Your task to perform on an android device: Open privacy settings Image 0: 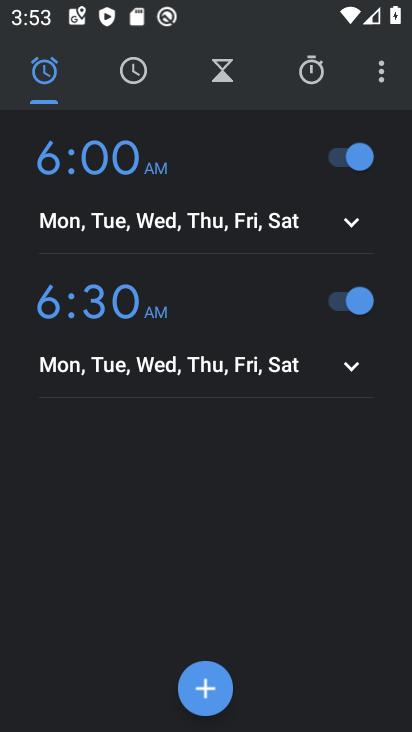
Step 0: press home button
Your task to perform on an android device: Open privacy settings Image 1: 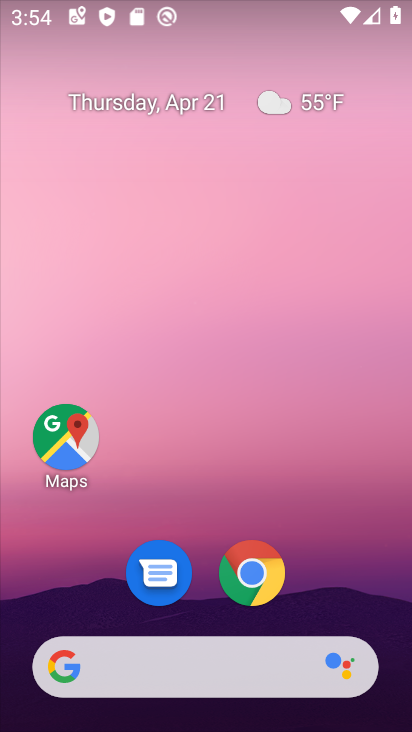
Step 1: drag from (346, 602) to (284, 129)
Your task to perform on an android device: Open privacy settings Image 2: 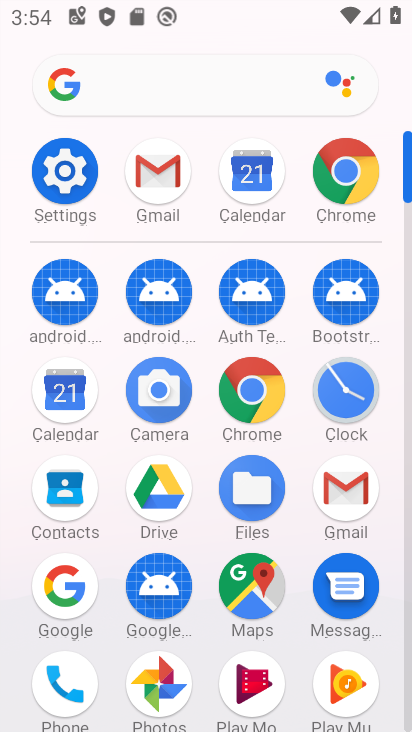
Step 2: click (409, 695)
Your task to perform on an android device: Open privacy settings Image 3: 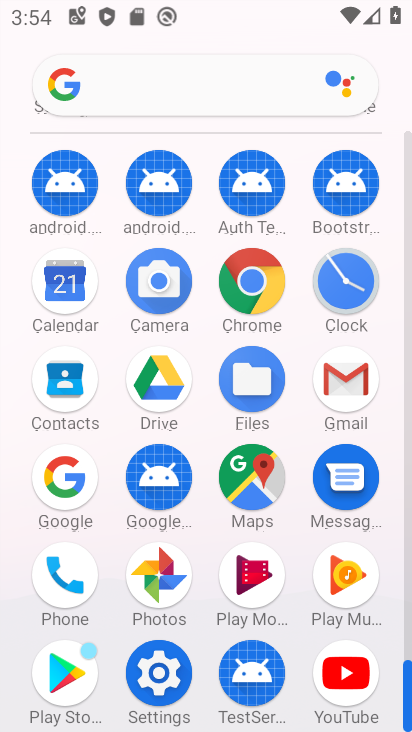
Step 3: click (158, 676)
Your task to perform on an android device: Open privacy settings Image 4: 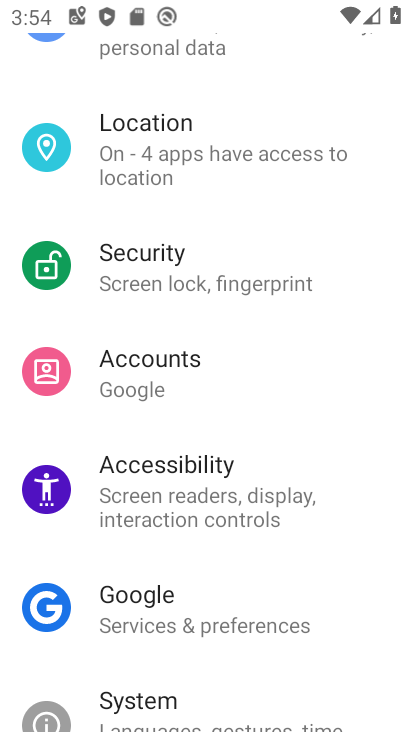
Step 4: drag from (360, 310) to (345, 501)
Your task to perform on an android device: Open privacy settings Image 5: 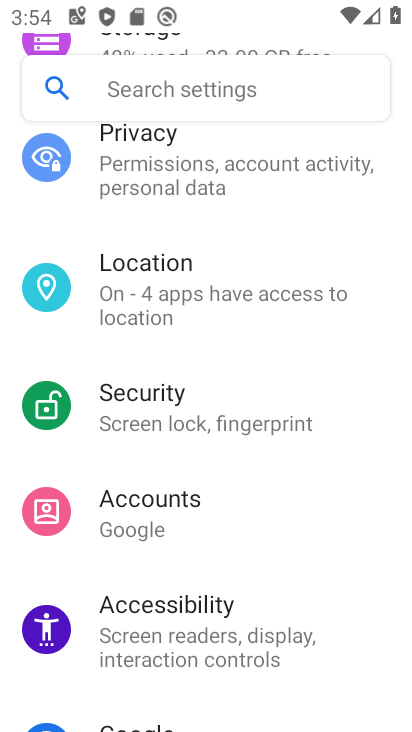
Step 5: drag from (358, 224) to (338, 457)
Your task to perform on an android device: Open privacy settings Image 6: 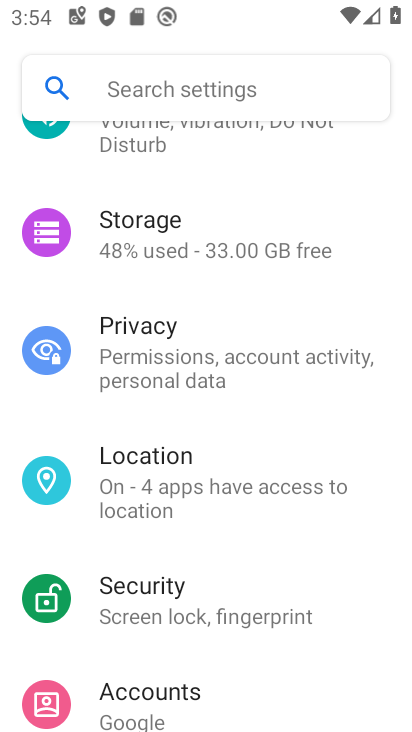
Step 6: click (129, 344)
Your task to perform on an android device: Open privacy settings Image 7: 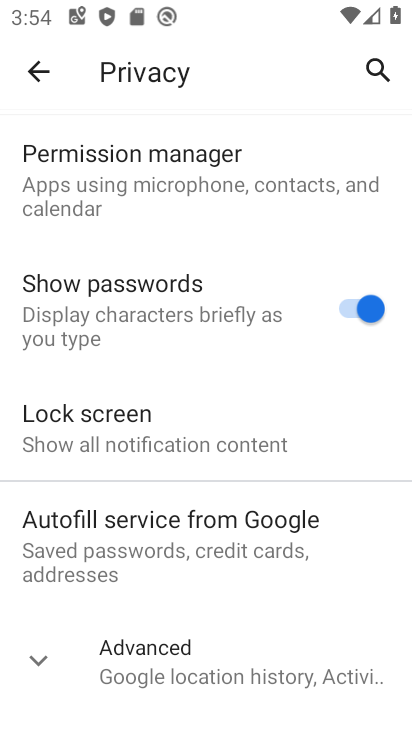
Step 7: click (39, 657)
Your task to perform on an android device: Open privacy settings Image 8: 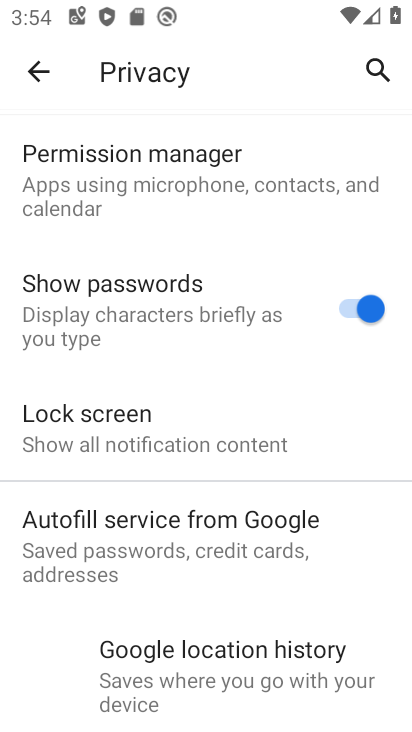
Step 8: task complete